Your task to perform on an android device: Open the calendar app, open the side menu, and click the "Day" option Image 0: 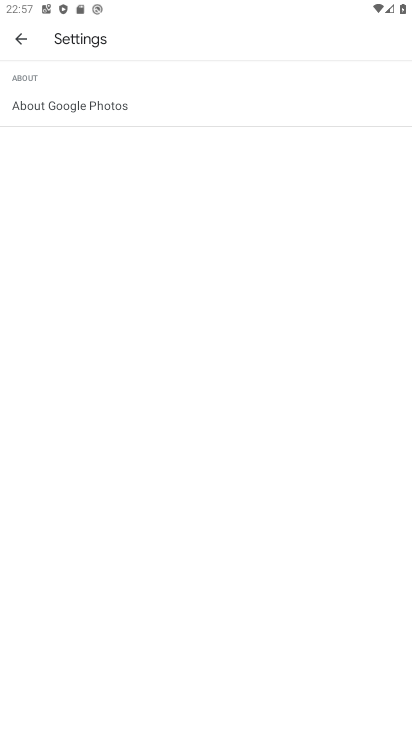
Step 0: press home button
Your task to perform on an android device: Open the calendar app, open the side menu, and click the "Day" option Image 1: 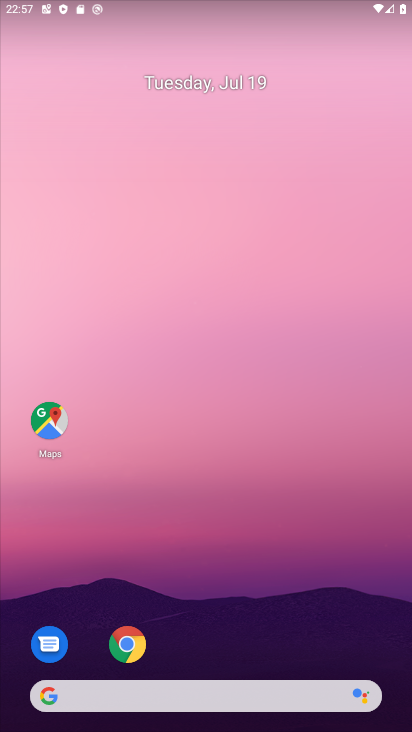
Step 1: drag from (258, 516) to (251, 277)
Your task to perform on an android device: Open the calendar app, open the side menu, and click the "Day" option Image 2: 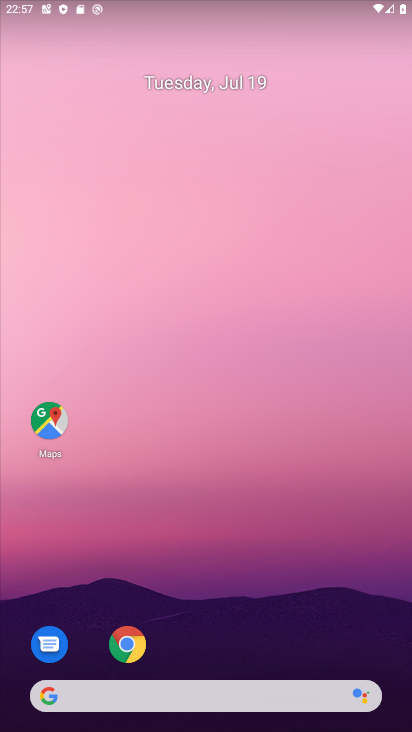
Step 2: drag from (238, 720) to (238, 126)
Your task to perform on an android device: Open the calendar app, open the side menu, and click the "Day" option Image 3: 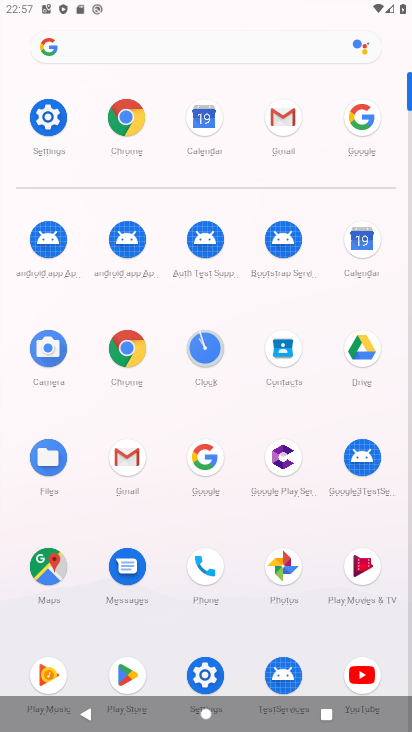
Step 3: click (364, 245)
Your task to perform on an android device: Open the calendar app, open the side menu, and click the "Day" option Image 4: 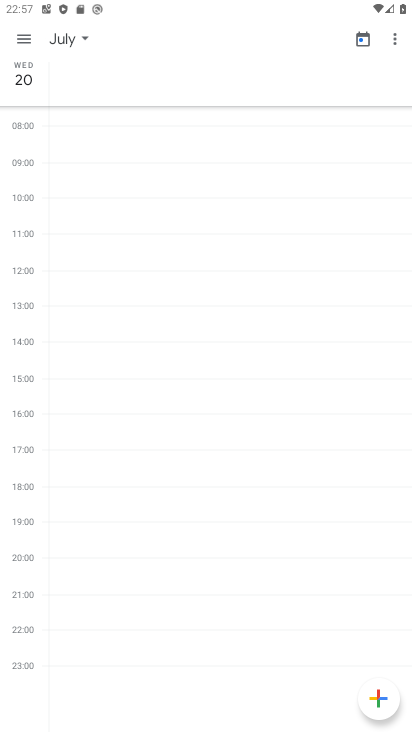
Step 4: click (22, 36)
Your task to perform on an android device: Open the calendar app, open the side menu, and click the "Day" option Image 5: 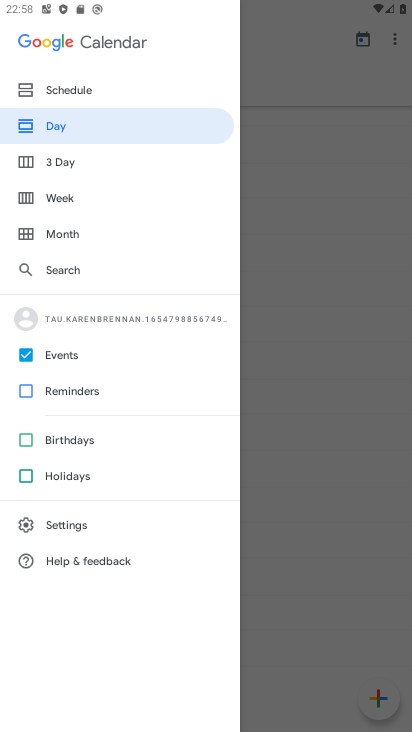
Step 5: drag from (59, 160) to (66, 122)
Your task to perform on an android device: Open the calendar app, open the side menu, and click the "Day" option Image 6: 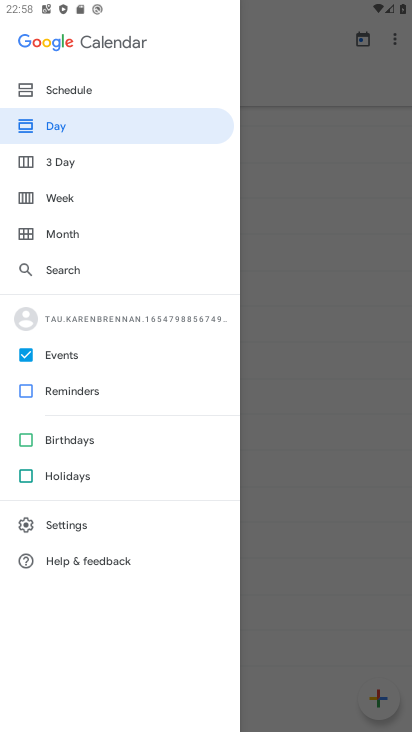
Step 6: click (62, 118)
Your task to perform on an android device: Open the calendar app, open the side menu, and click the "Day" option Image 7: 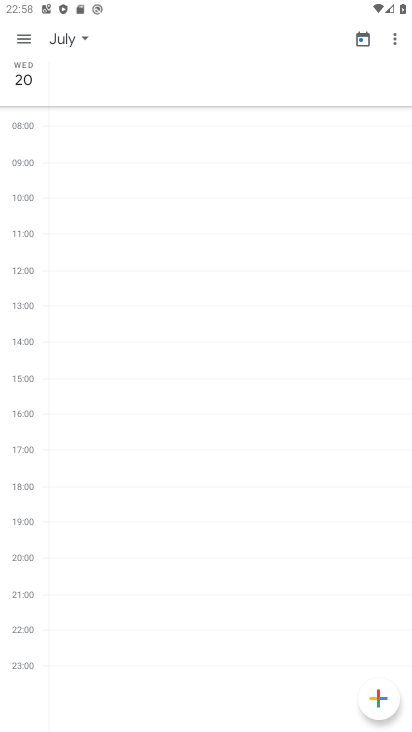
Step 7: task complete